Your task to perform on an android device: open a bookmark in the chrome app Image 0: 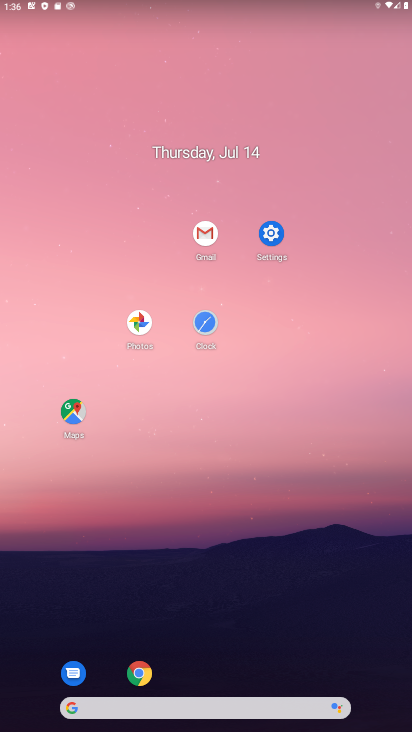
Step 0: click (146, 677)
Your task to perform on an android device: open a bookmark in the chrome app Image 1: 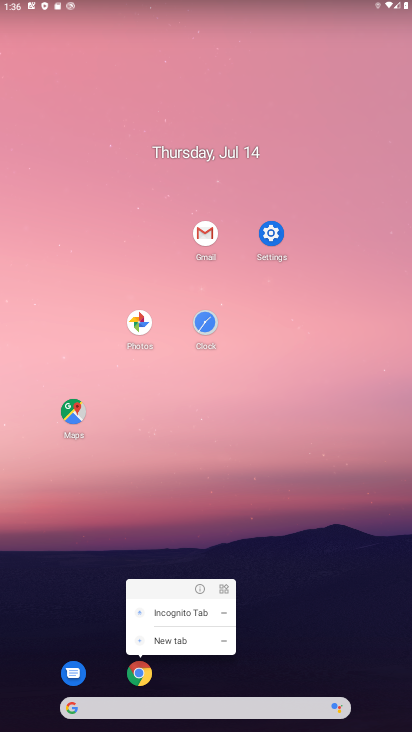
Step 1: click (136, 671)
Your task to perform on an android device: open a bookmark in the chrome app Image 2: 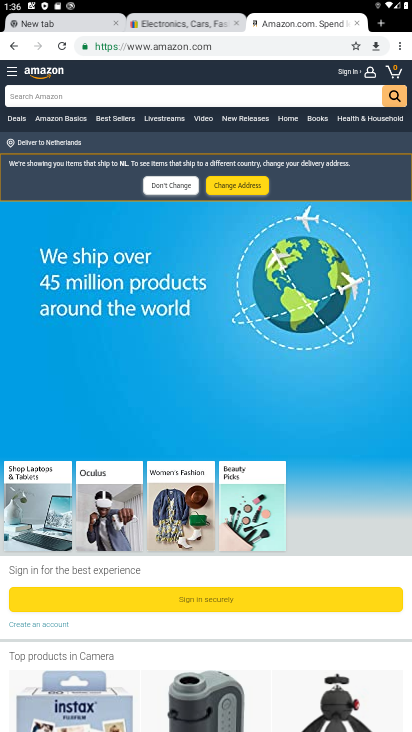
Step 2: click (376, 23)
Your task to perform on an android device: open a bookmark in the chrome app Image 3: 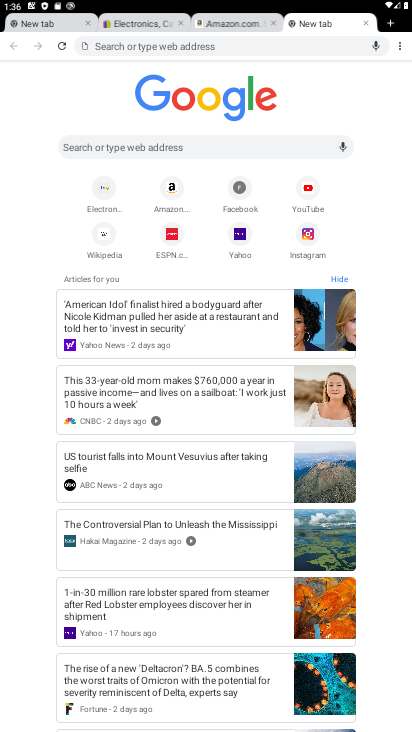
Step 3: click (400, 50)
Your task to perform on an android device: open a bookmark in the chrome app Image 4: 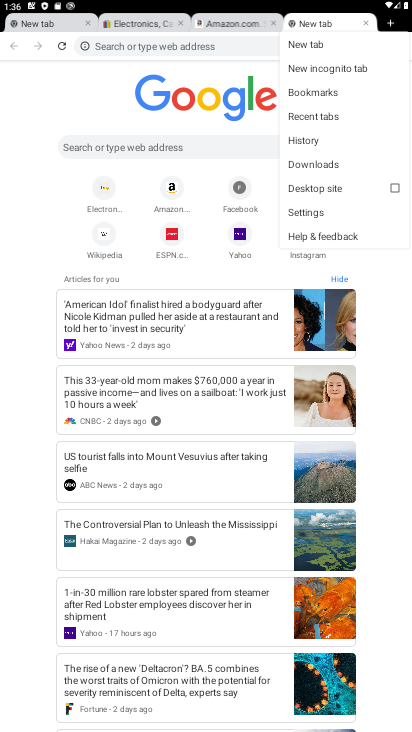
Step 4: click (342, 92)
Your task to perform on an android device: open a bookmark in the chrome app Image 5: 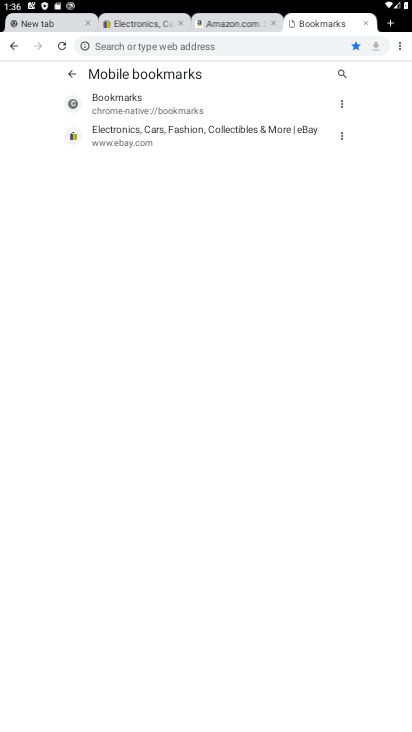
Step 5: task complete